Your task to perform on an android device: change notifications settings Image 0: 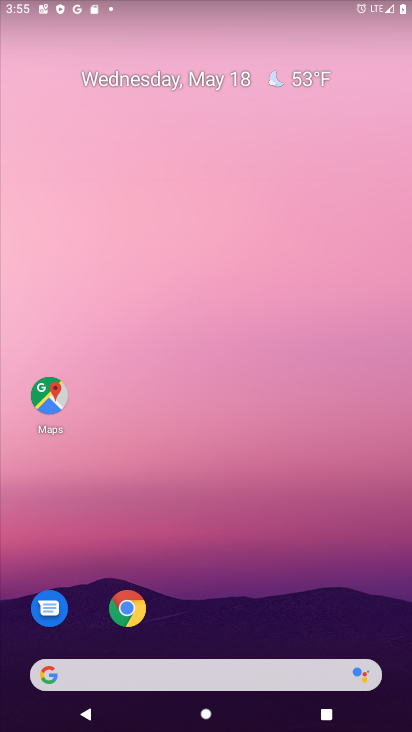
Step 0: drag from (244, 626) to (258, 8)
Your task to perform on an android device: change notifications settings Image 1: 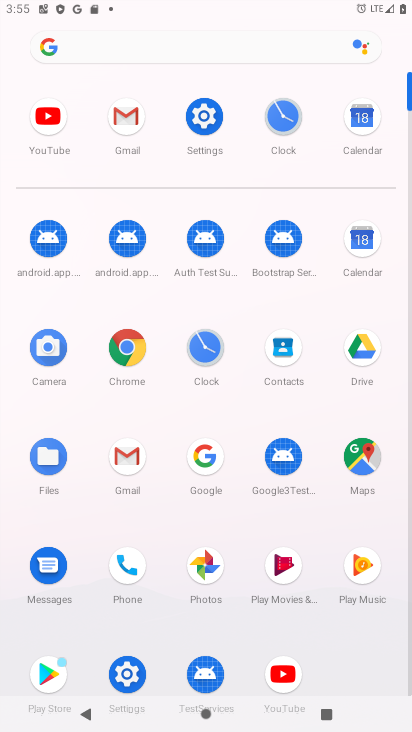
Step 1: click (212, 115)
Your task to perform on an android device: change notifications settings Image 2: 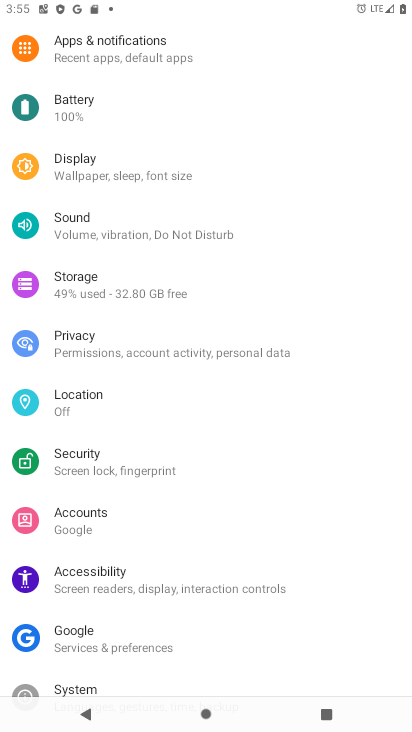
Step 2: click (113, 60)
Your task to perform on an android device: change notifications settings Image 3: 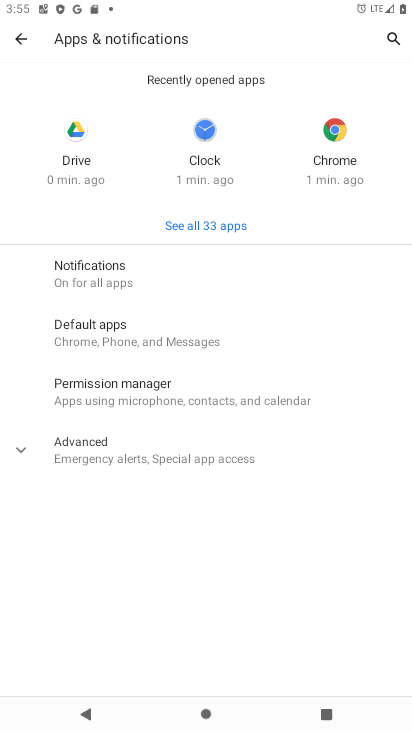
Step 3: click (73, 277)
Your task to perform on an android device: change notifications settings Image 4: 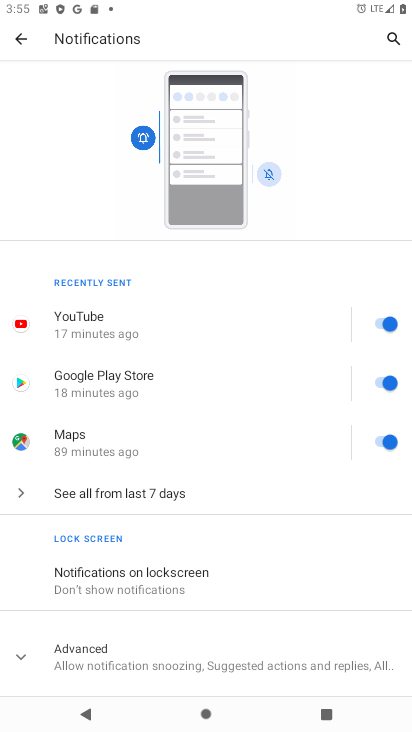
Step 4: drag from (163, 588) to (123, 323)
Your task to perform on an android device: change notifications settings Image 5: 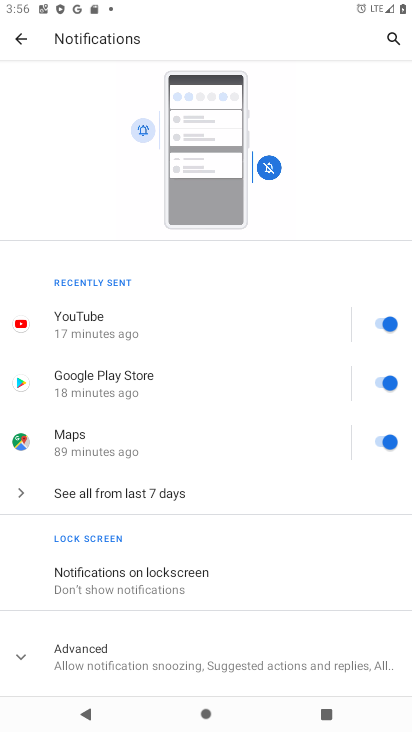
Step 5: click (103, 494)
Your task to perform on an android device: change notifications settings Image 6: 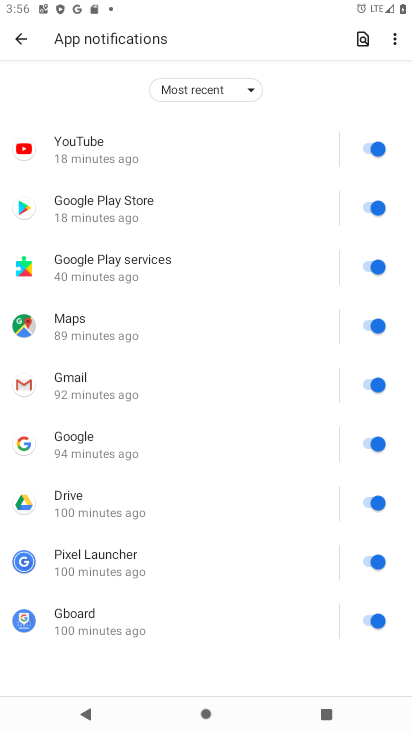
Step 6: click (252, 87)
Your task to perform on an android device: change notifications settings Image 7: 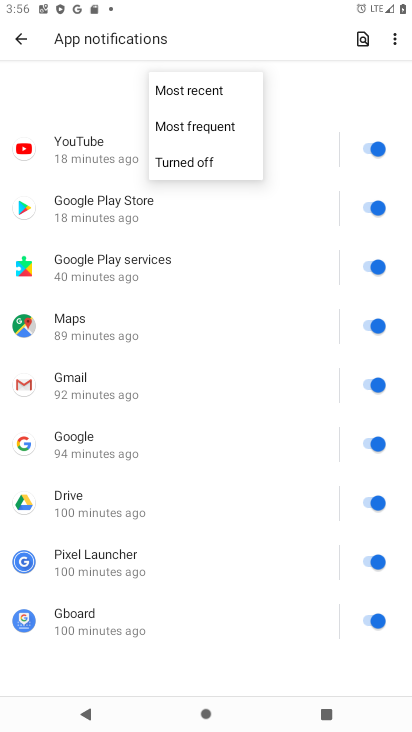
Step 7: click (201, 135)
Your task to perform on an android device: change notifications settings Image 8: 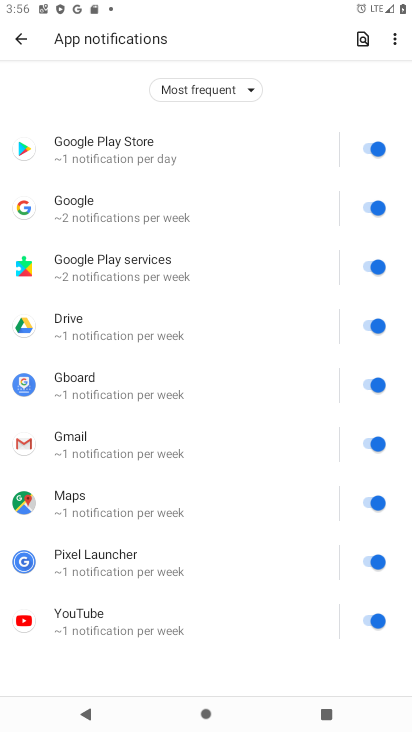
Step 8: task complete